Your task to perform on an android device: Open notification settings Image 0: 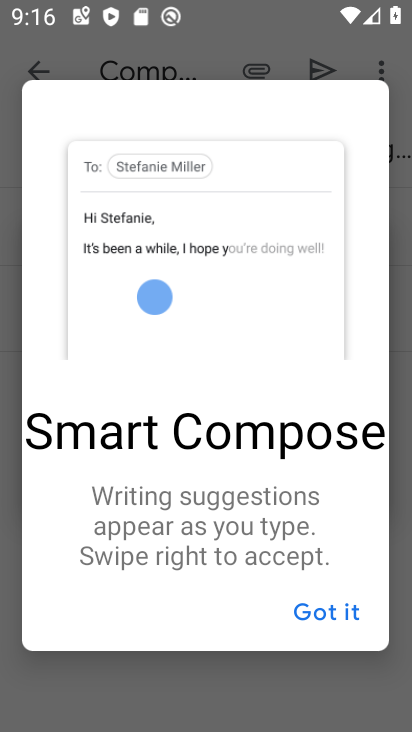
Step 0: click (369, 603)
Your task to perform on an android device: Open notification settings Image 1: 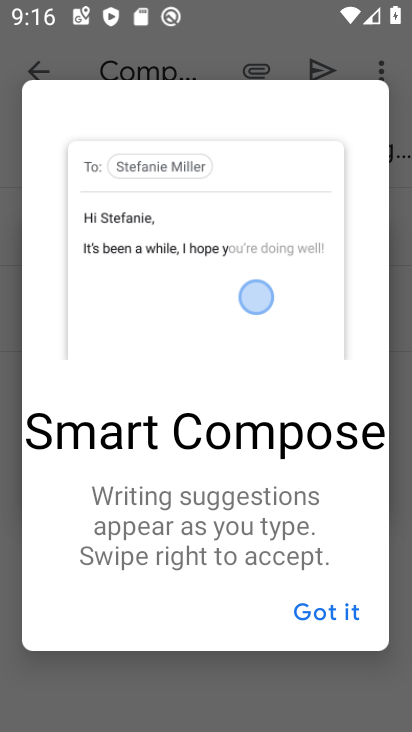
Step 1: click (369, 603)
Your task to perform on an android device: Open notification settings Image 2: 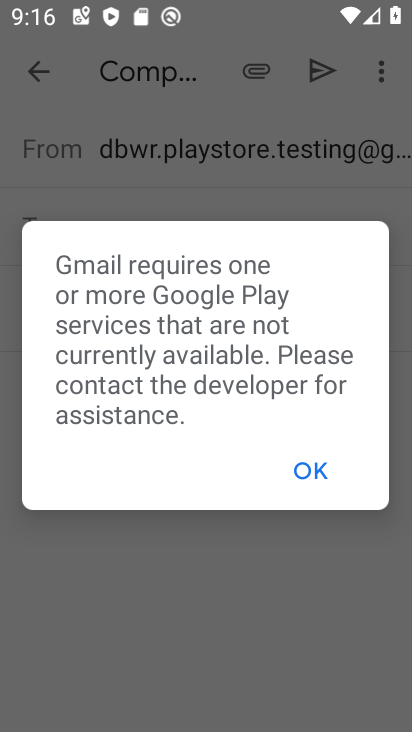
Step 2: press home button
Your task to perform on an android device: Open notification settings Image 3: 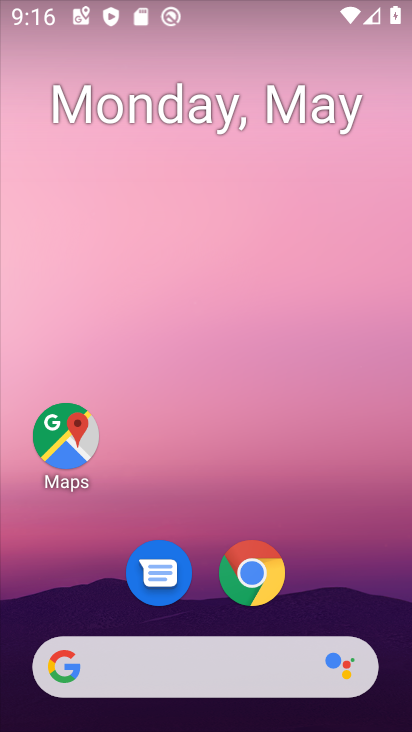
Step 3: drag from (367, 578) to (214, 155)
Your task to perform on an android device: Open notification settings Image 4: 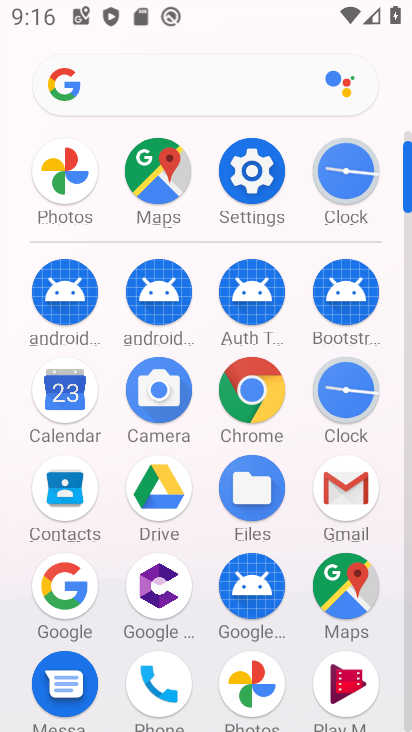
Step 4: click (241, 186)
Your task to perform on an android device: Open notification settings Image 5: 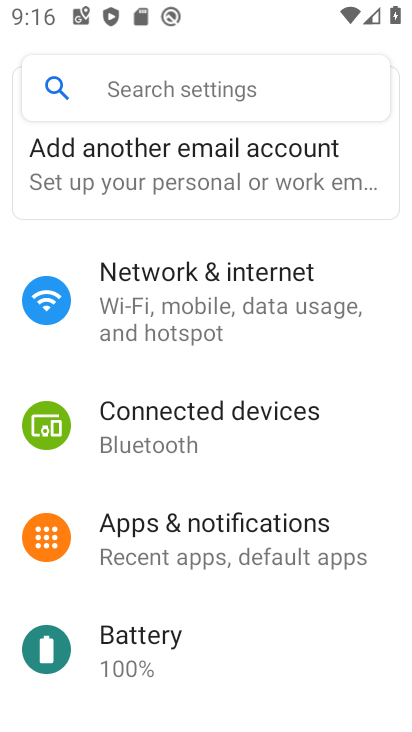
Step 5: click (177, 504)
Your task to perform on an android device: Open notification settings Image 6: 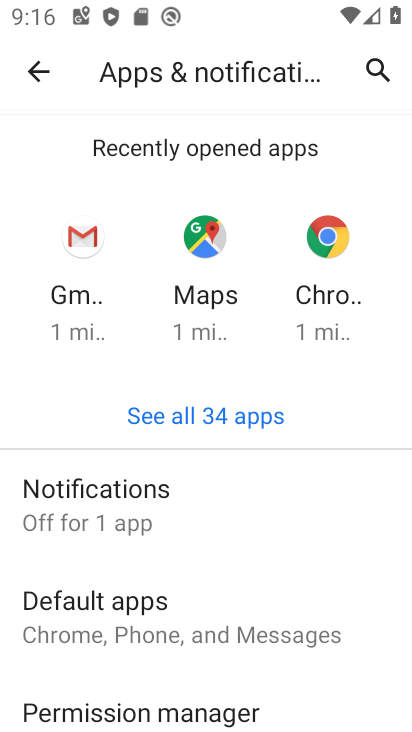
Step 6: drag from (172, 656) to (209, 307)
Your task to perform on an android device: Open notification settings Image 7: 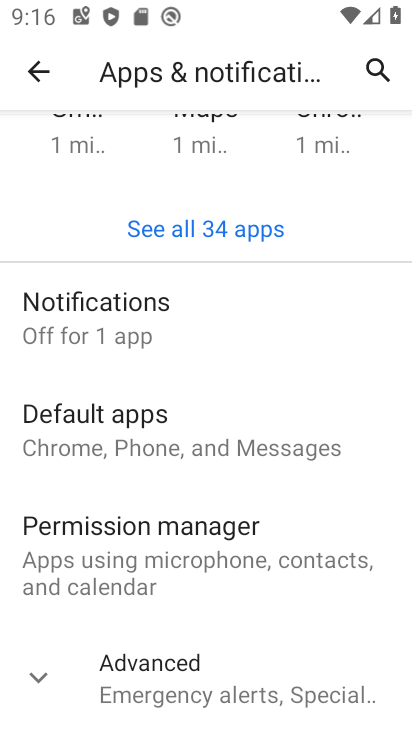
Step 7: click (207, 645)
Your task to perform on an android device: Open notification settings Image 8: 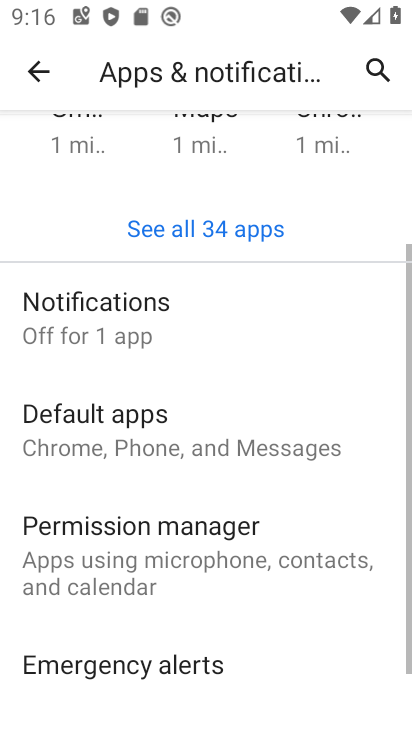
Step 8: task complete